Your task to perform on an android device: Open the Play Movies app and select the watchlist tab. Image 0: 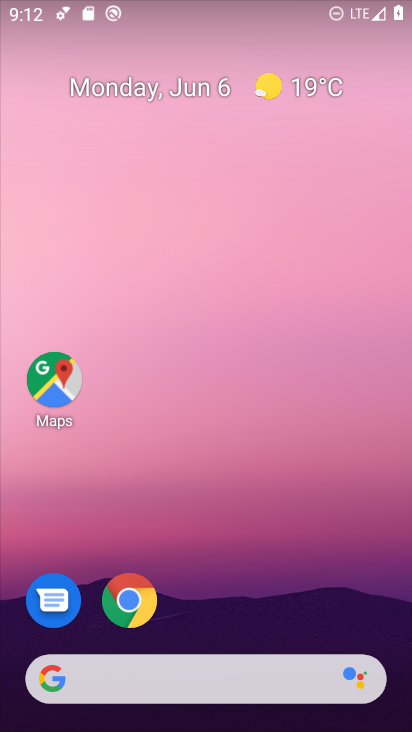
Step 0: press home button
Your task to perform on an android device: Open the Play Movies app and select the watchlist tab. Image 1: 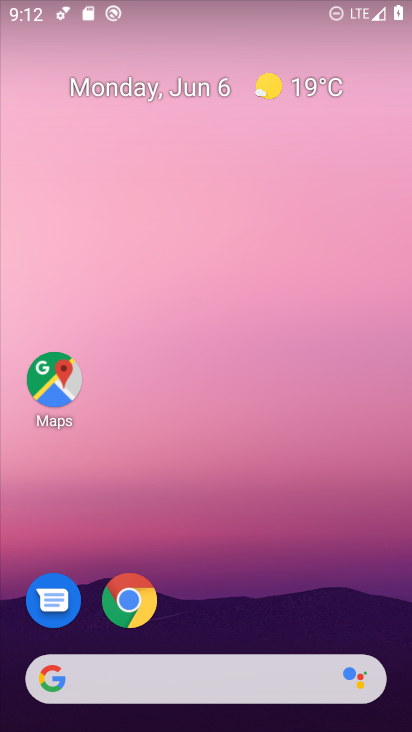
Step 1: drag from (276, 536) to (218, 0)
Your task to perform on an android device: Open the Play Movies app and select the watchlist tab. Image 2: 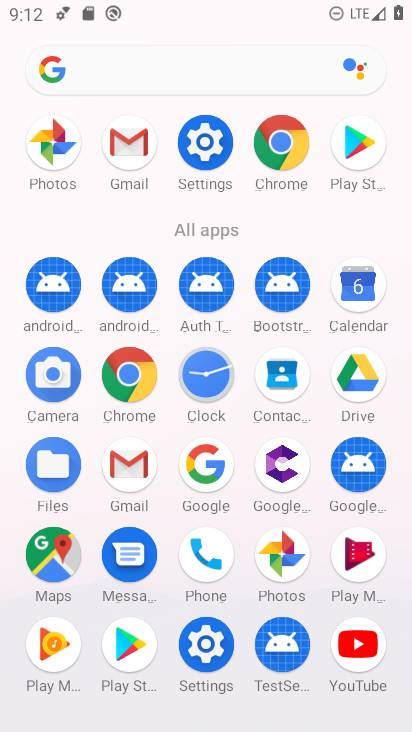
Step 2: click (366, 558)
Your task to perform on an android device: Open the Play Movies app and select the watchlist tab. Image 3: 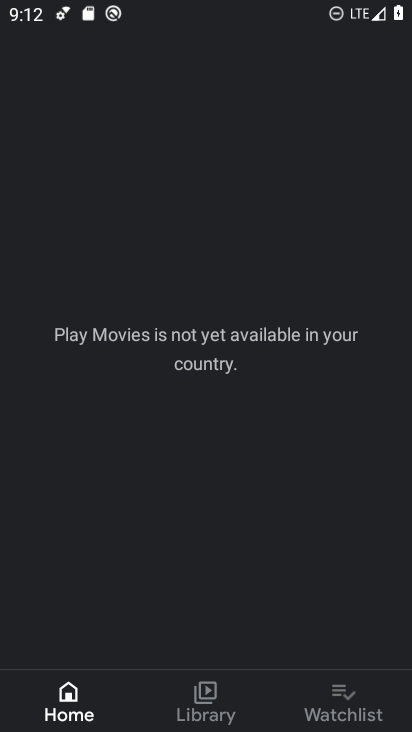
Step 3: click (339, 704)
Your task to perform on an android device: Open the Play Movies app and select the watchlist tab. Image 4: 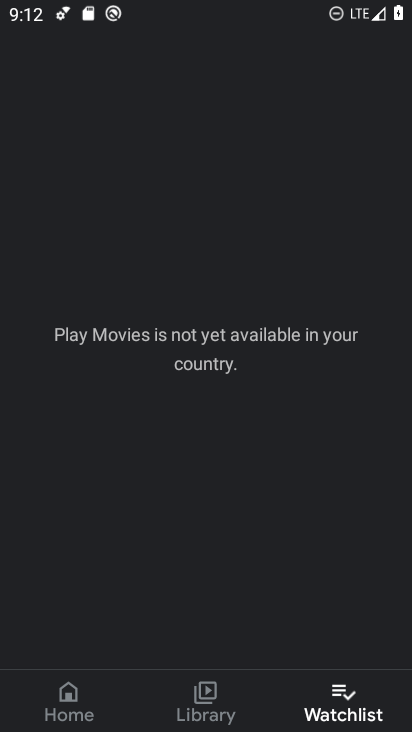
Step 4: task complete